Your task to perform on an android device: Open the map Image 0: 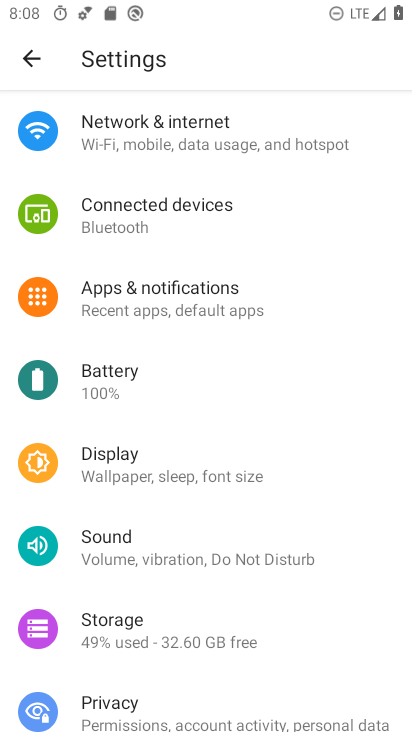
Step 0: press back button
Your task to perform on an android device: Open the map Image 1: 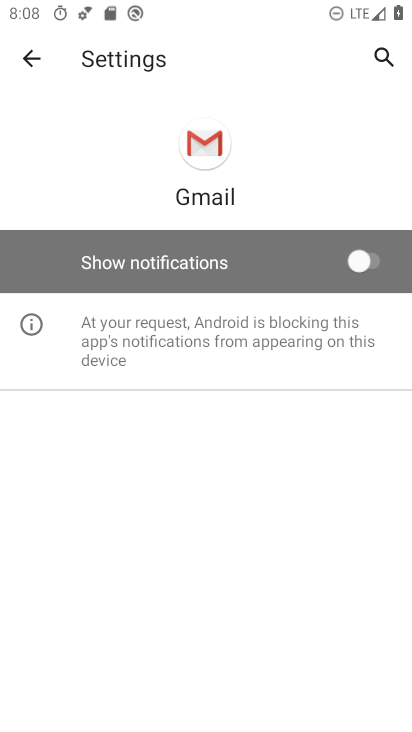
Step 1: press back button
Your task to perform on an android device: Open the map Image 2: 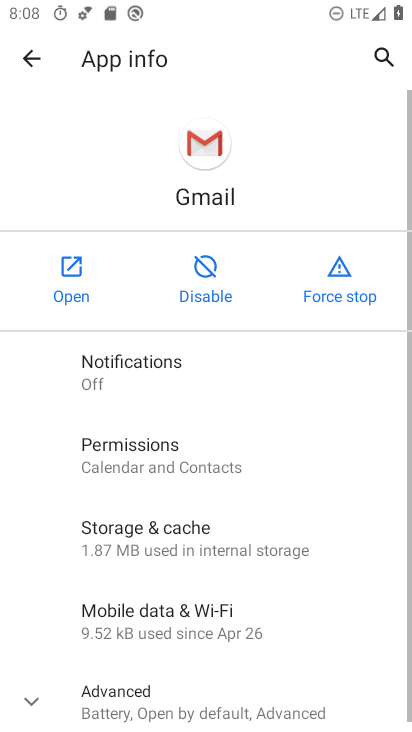
Step 2: press back button
Your task to perform on an android device: Open the map Image 3: 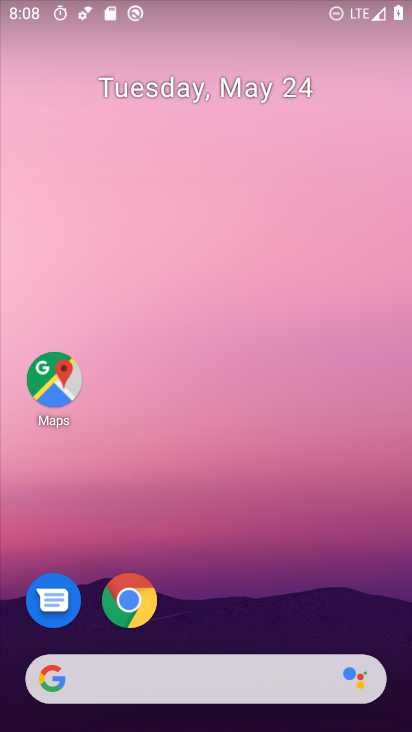
Step 3: click (37, 382)
Your task to perform on an android device: Open the map Image 4: 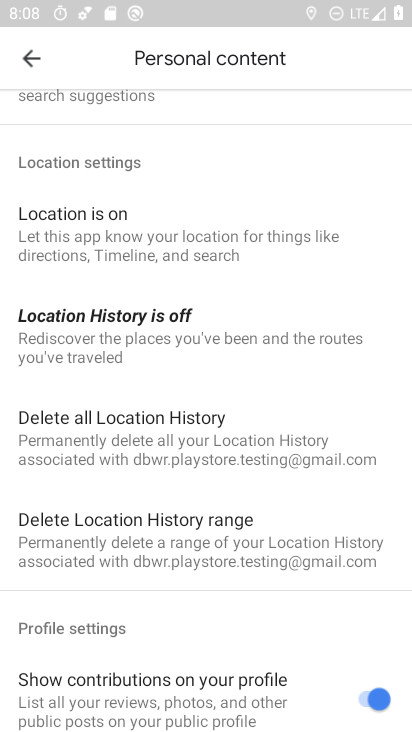
Step 4: task complete